Your task to perform on an android device: Play the new Justin Bieber video on YouTube Image 0: 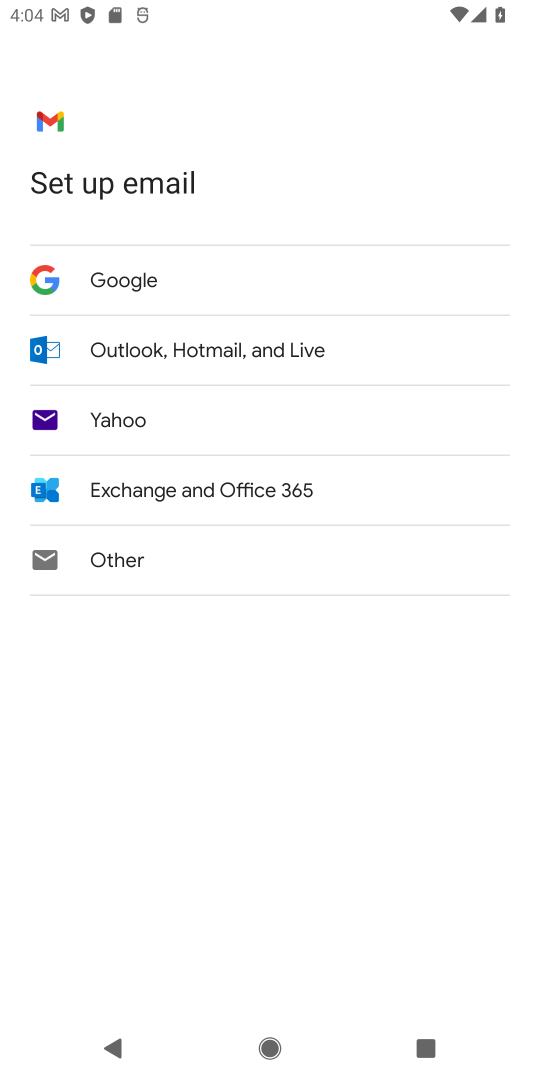
Step 0: press home button
Your task to perform on an android device: Play the new Justin Bieber video on YouTube Image 1: 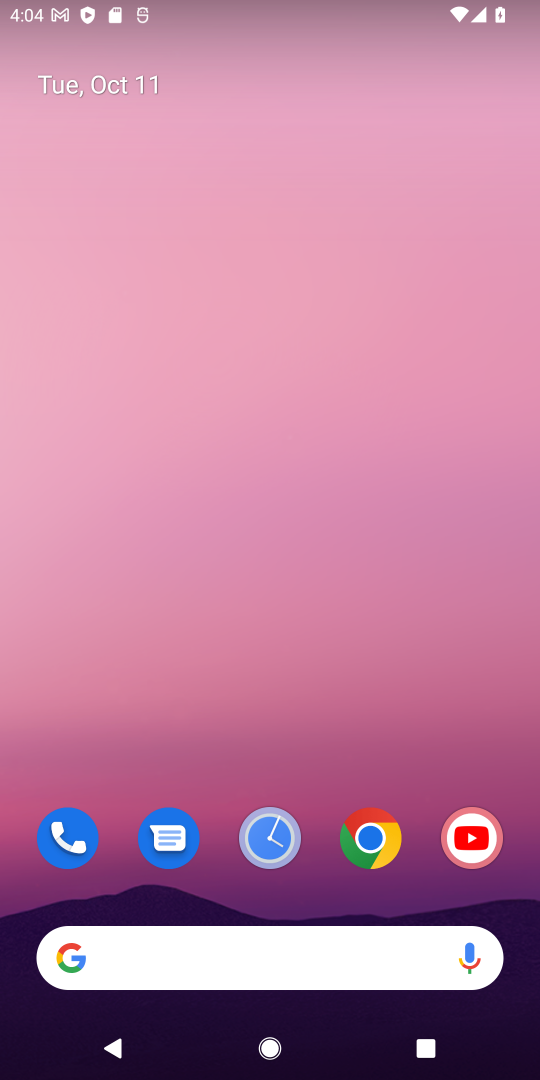
Step 1: drag from (210, 870) to (392, 121)
Your task to perform on an android device: Play the new Justin Bieber video on YouTube Image 2: 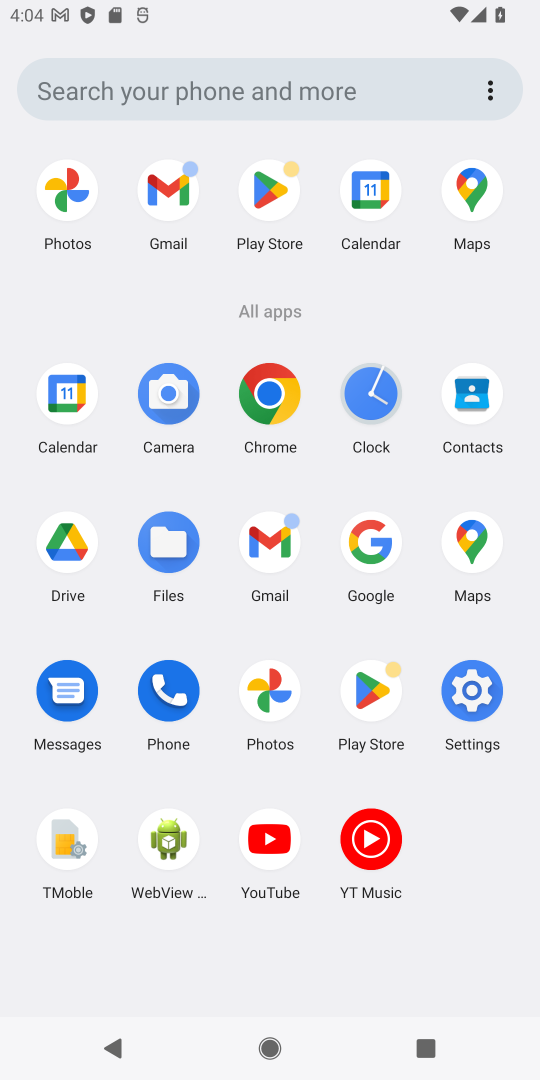
Step 2: click (285, 841)
Your task to perform on an android device: Play the new Justin Bieber video on YouTube Image 3: 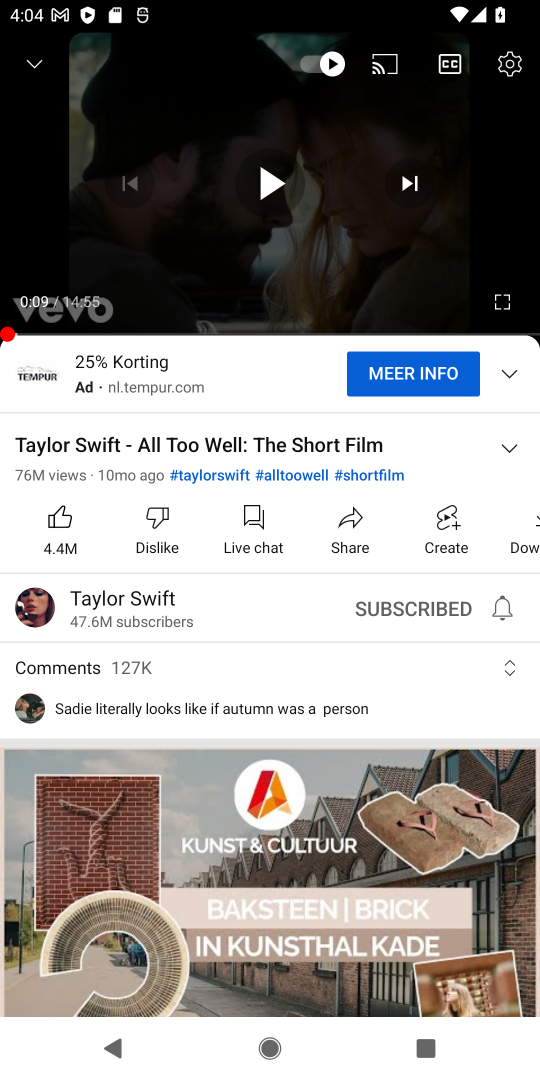
Step 3: click (35, 66)
Your task to perform on an android device: Play the new Justin Bieber video on YouTube Image 4: 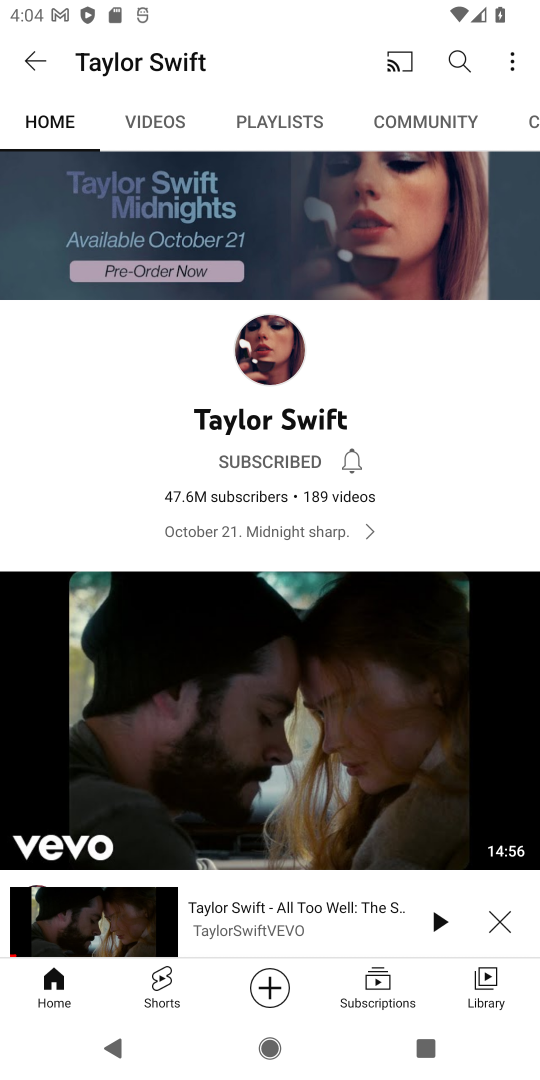
Step 4: click (436, 58)
Your task to perform on an android device: Play the new Justin Bieber video on YouTube Image 5: 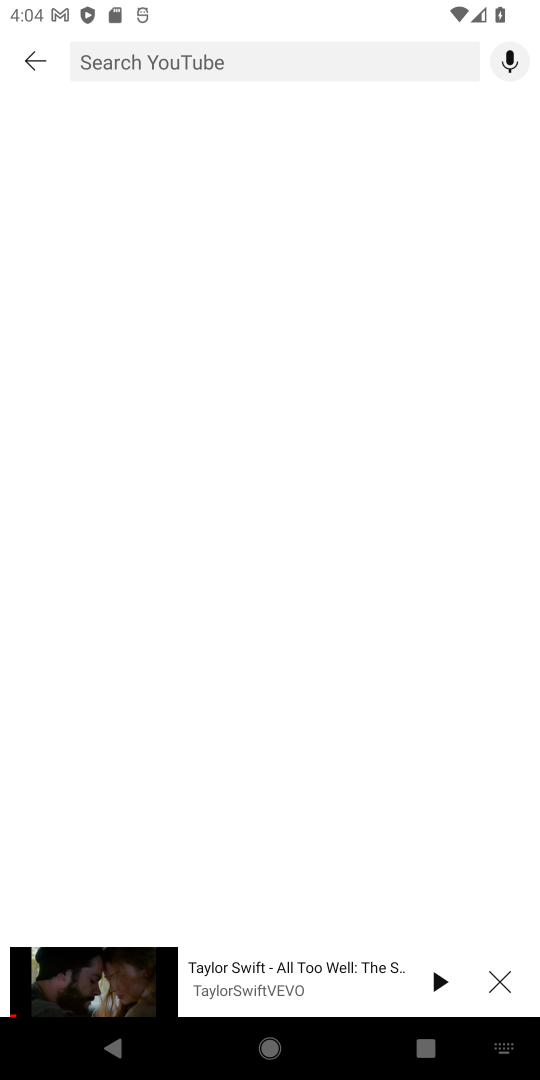
Step 5: click (201, 36)
Your task to perform on an android device: Play the new Justin Bieber video on YouTube Image 6: 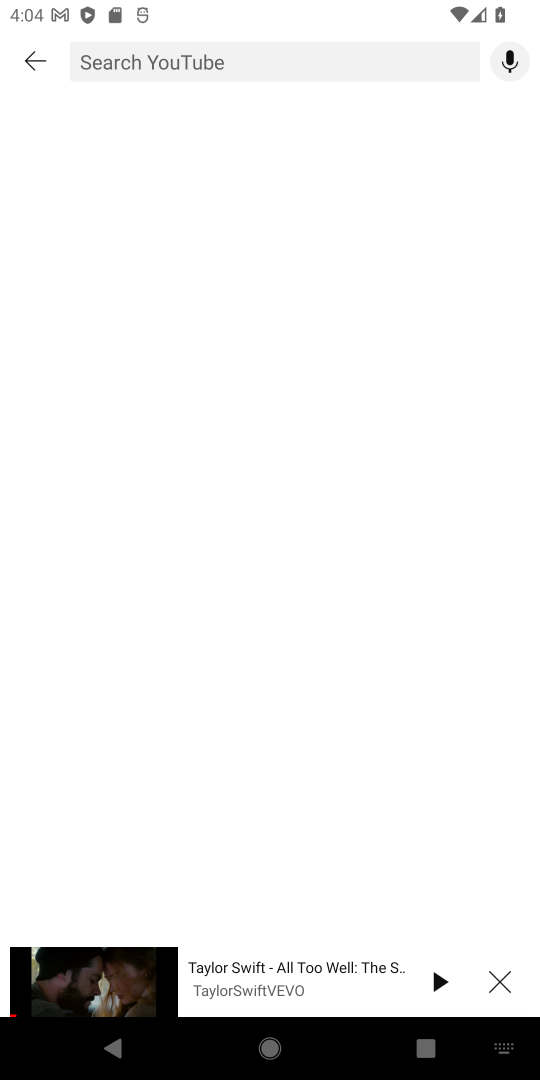
Step 6: type "new Justin Bieber video "
Your task to perform on an android device: Play the new Justin Bieber video on YouTube Image 7: 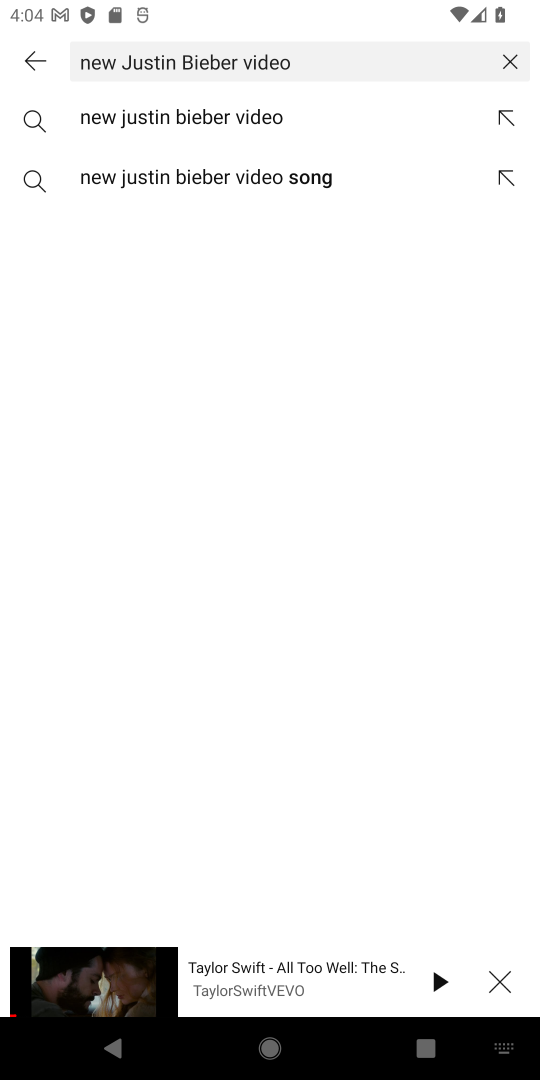
Step 7: click (255, 112)
Your task to perform on an android device: Play the new Justin Bieber video on YouTube Image 8: 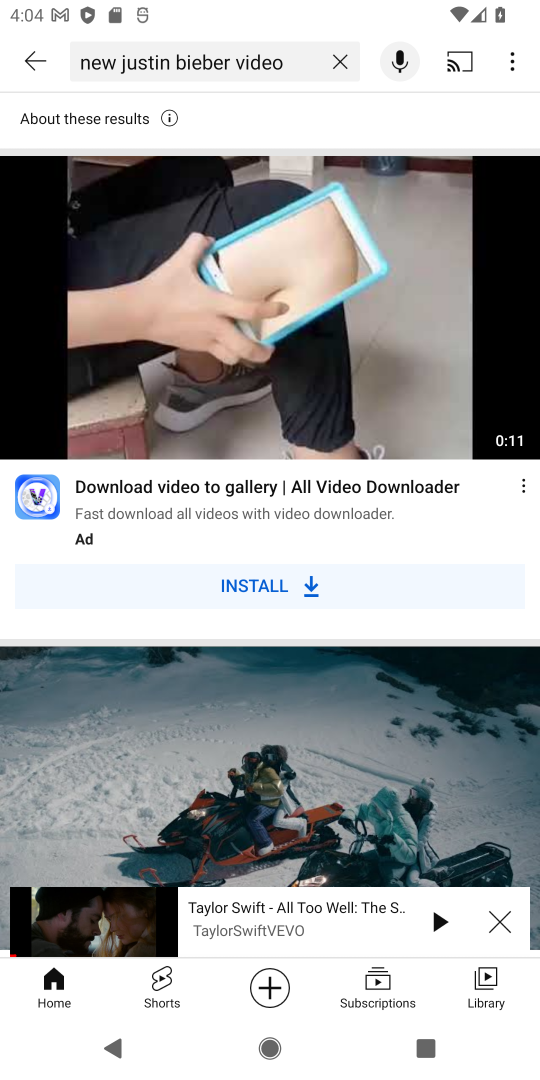
Step 8: drag from (259, 766) to (333, 304)
Your task to perform on an android device: Play the new Justin Bieber video on YouTube Image 9: 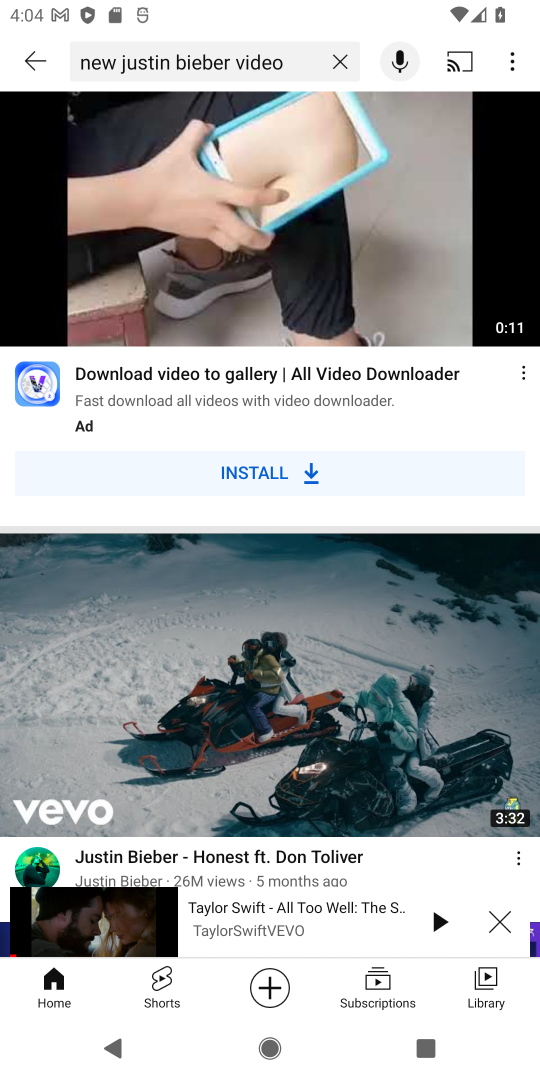
Step 9: click (221, 684)
Your task to perform on an android device: Play the new Justin Bieber video on YouTube Image 10: 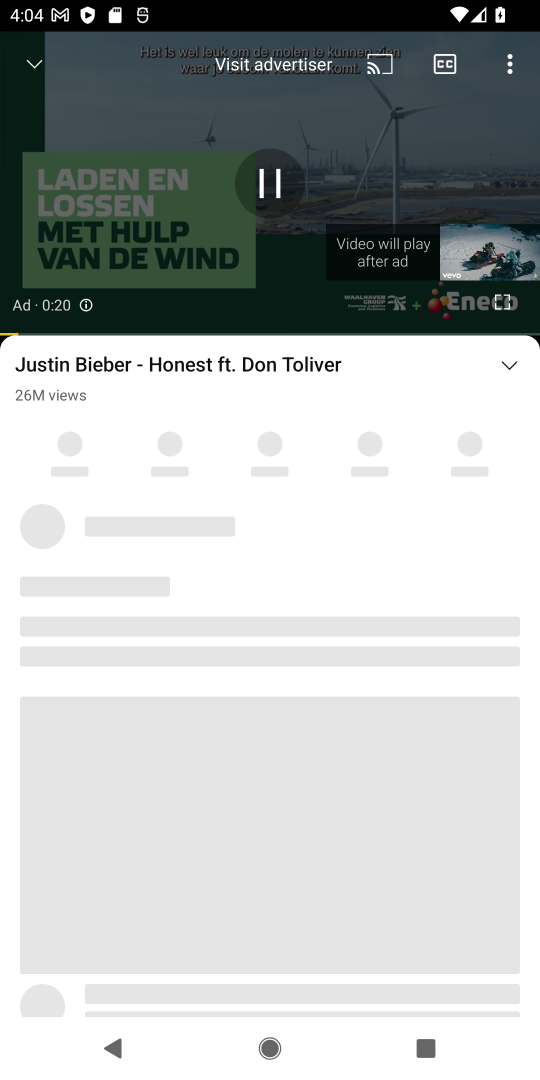
Step 10: task complete